Your task to perform on an android device: turn off javascript in the chrome app Image 0: 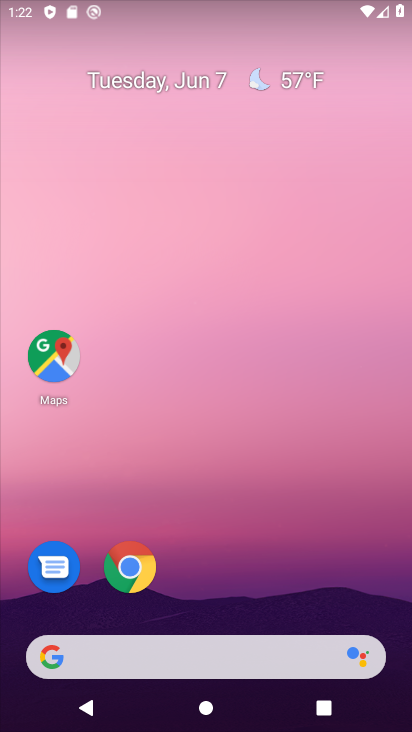
Step 0: click (134, 565)
Your task to perform on an android device: turn off javascript in the chrome app Image 1: 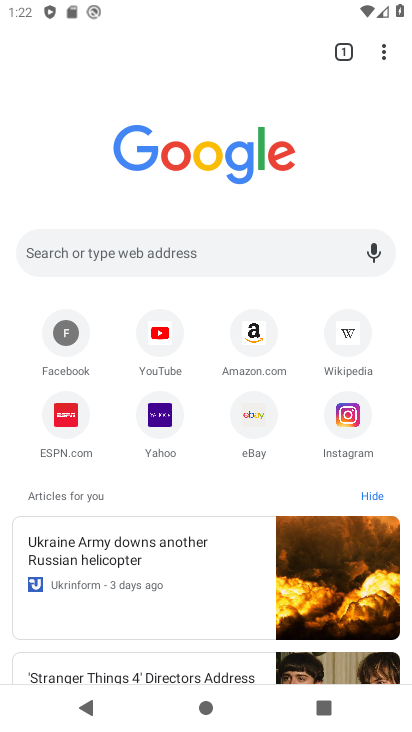
Step 1: click (375, 58)
Your task to perform on an android device: turn off javascript in the chrome app Image 2: 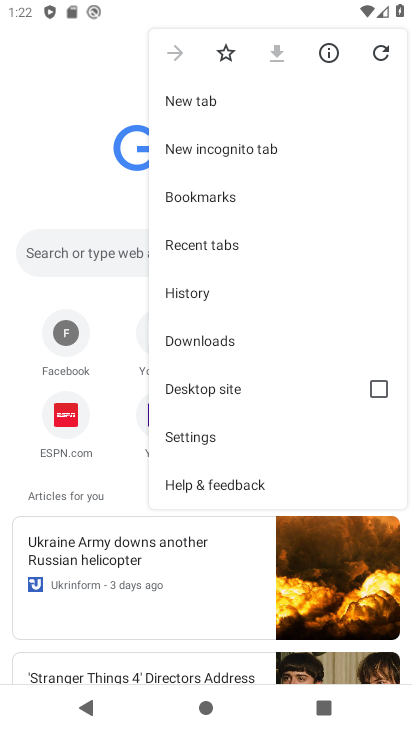
Step 2: click (227, 427)
Your task to perform on an android device: turn off javascript in the chrome app Image 3: 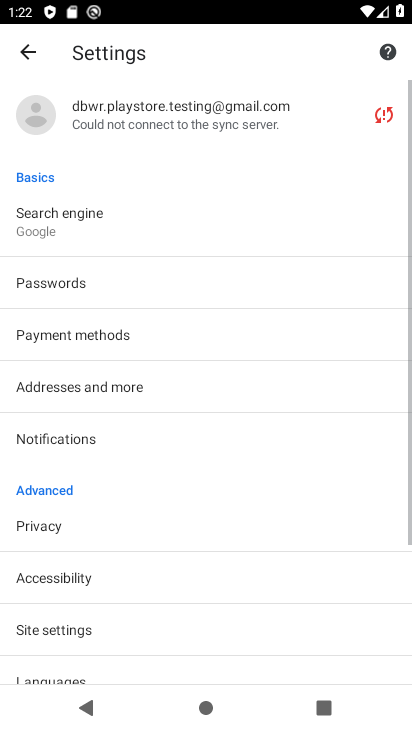
Step 3: drag from (187, 556) to (168, 353)
Your task to perform on an android device: turn off javascript in the chrome app Image 4: 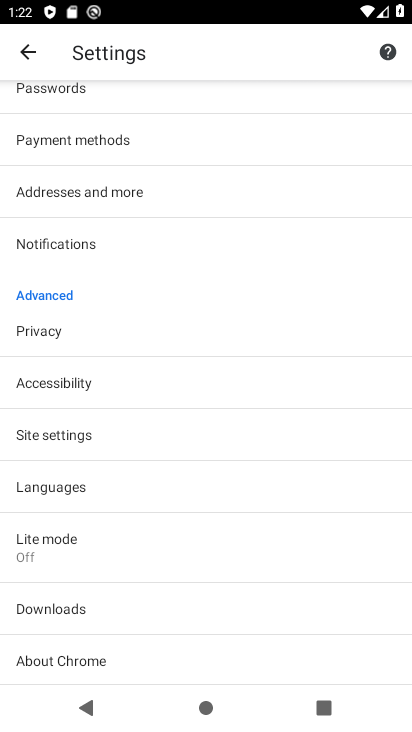
Step 4: click (96, 438)
Your task to perform on an android device: turn off javascript in the chrome app Image 5: 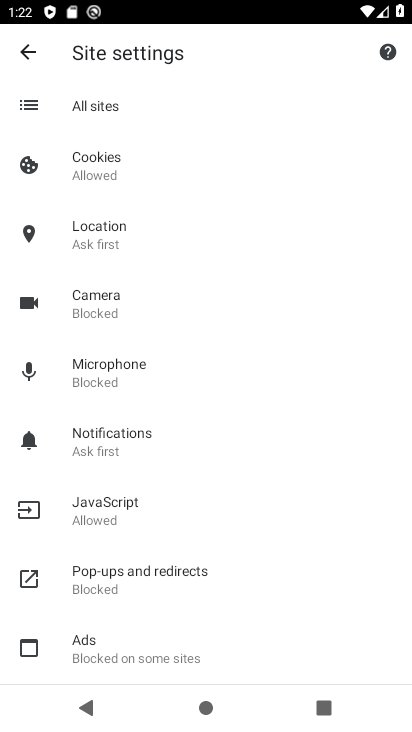
Step 5: click (123, 516)
Your task to perform on an android device: turn off javascript in the chrome app Image 6: 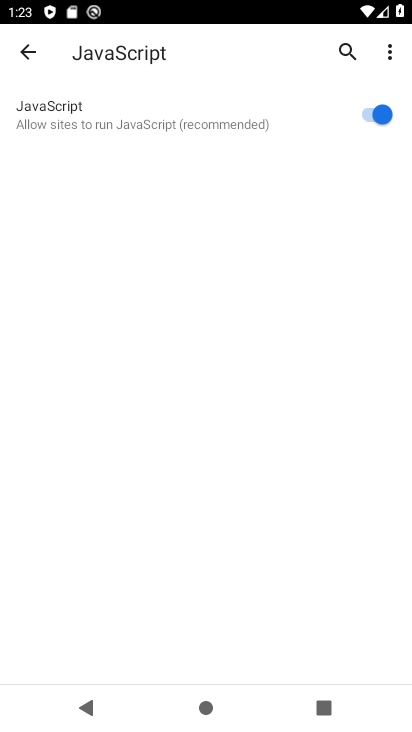
Step 6: click (378, 112)
Your task to perform on an android device: turn off javascript in the chrome app Image 7: 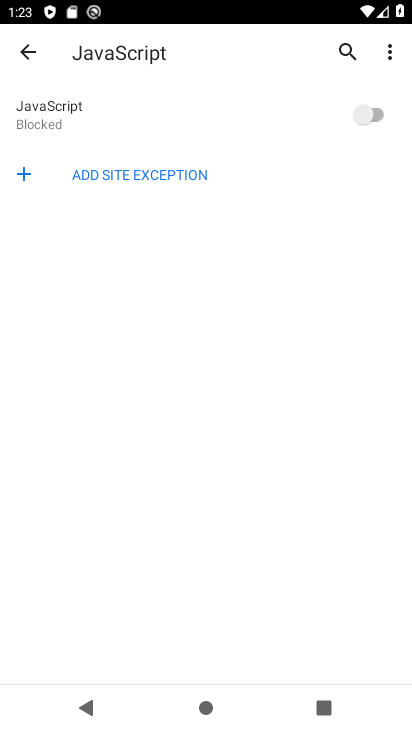
Step 7: task complete